Your task to perform on an android device: uninstall "Speedtest by Ookla" Image 0: 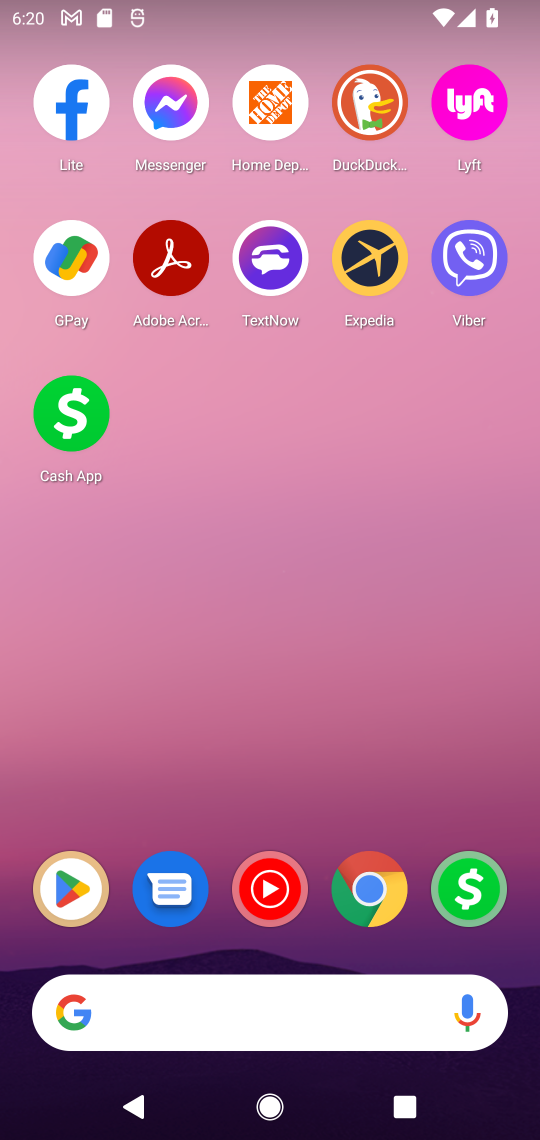
Step 0: drag from (318, 559) to (262, 196)
Your task to perform on an android device: uninstall "Speedtest by Ookla" Image 1: 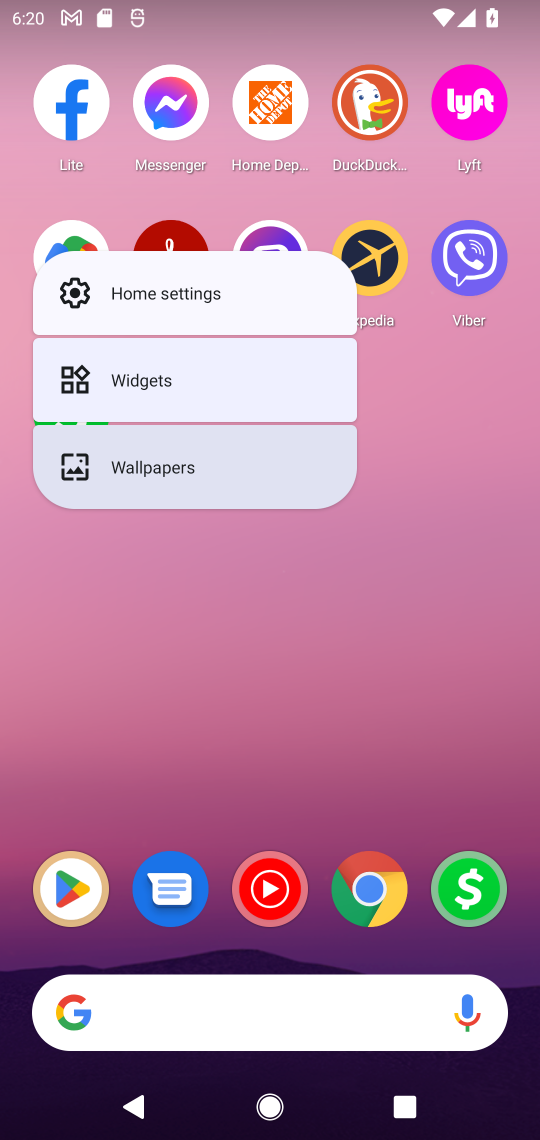
Step 1: drag from (167, 253) to (425, 361)
Your task to perform on an android device: uninstall "Speedtest by Ookla" Image 2: 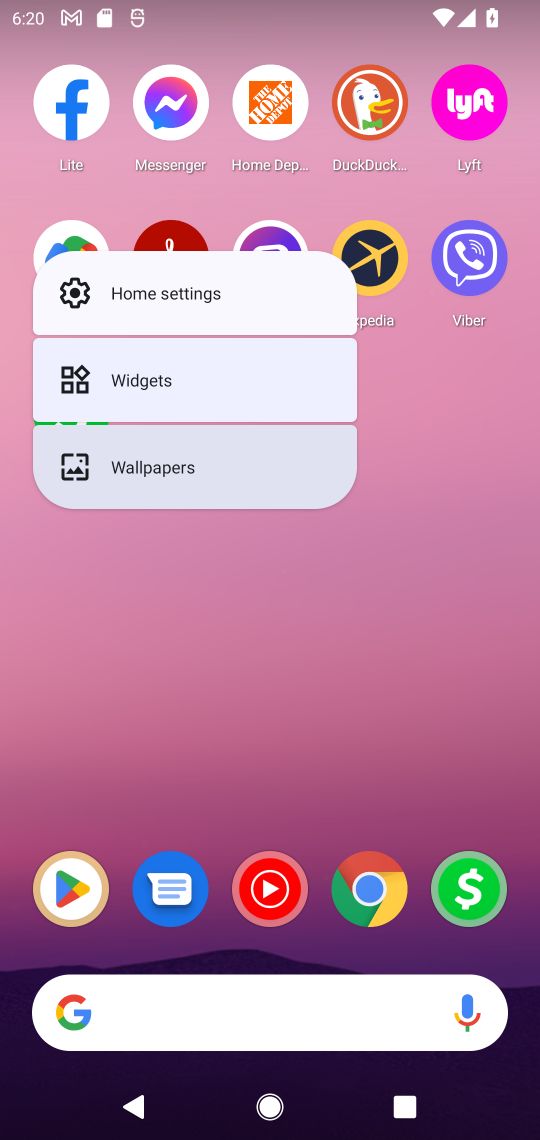
Step 2: drag from (314, 330) to (296, 47)
Your task to perform on an android device: uninstall "Speedtest by Ookla" Image 3: 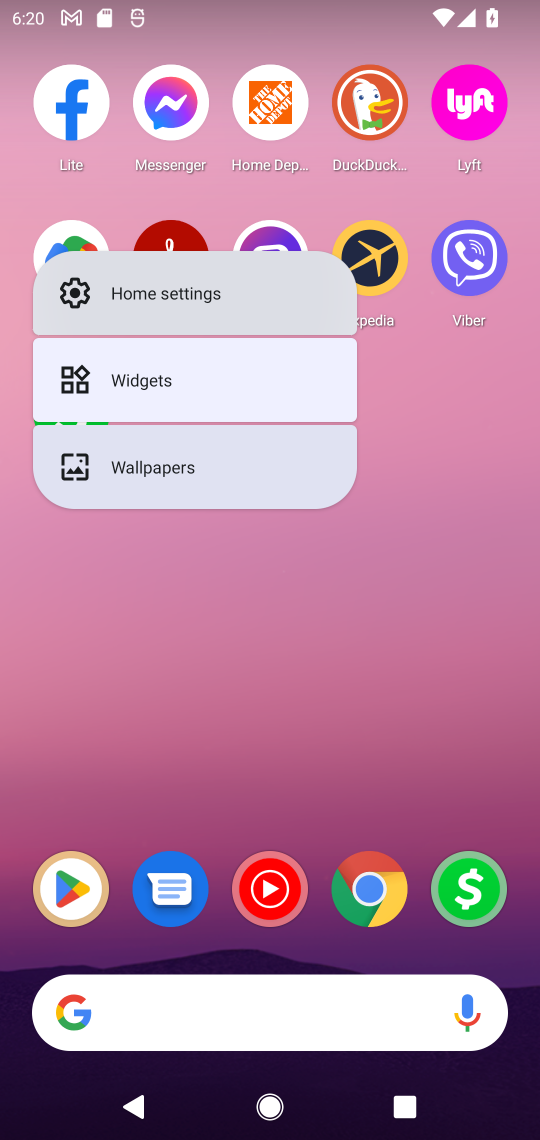
Step 3: press back button
Your task to perform on an android device: uninstall "Speedtest by Ookla" Image 4: 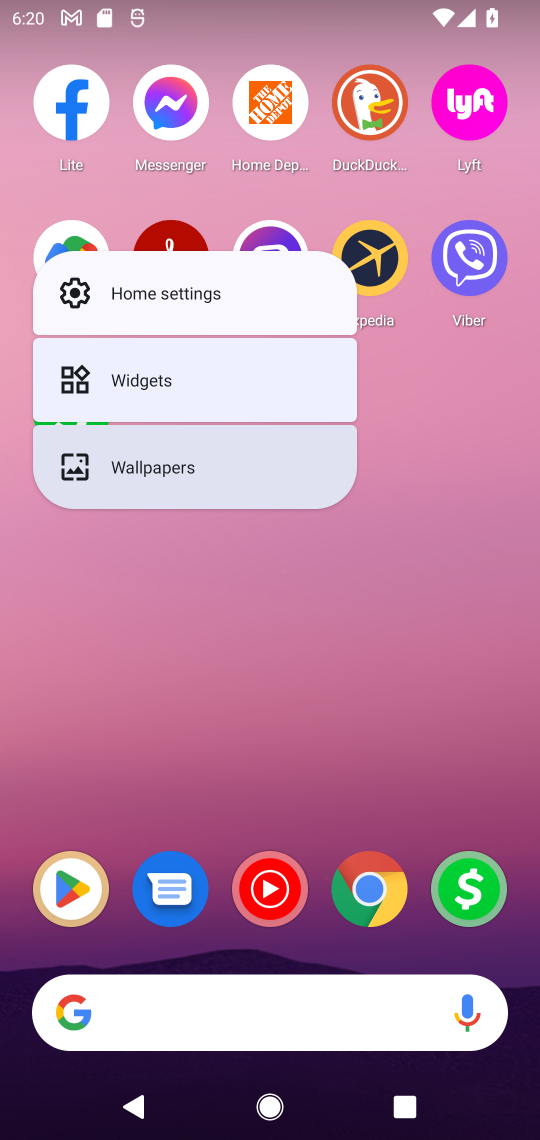
Step 4: press back button
Your task to perform on an android device: uninstall "Speedtest by Ookla" Image 5: 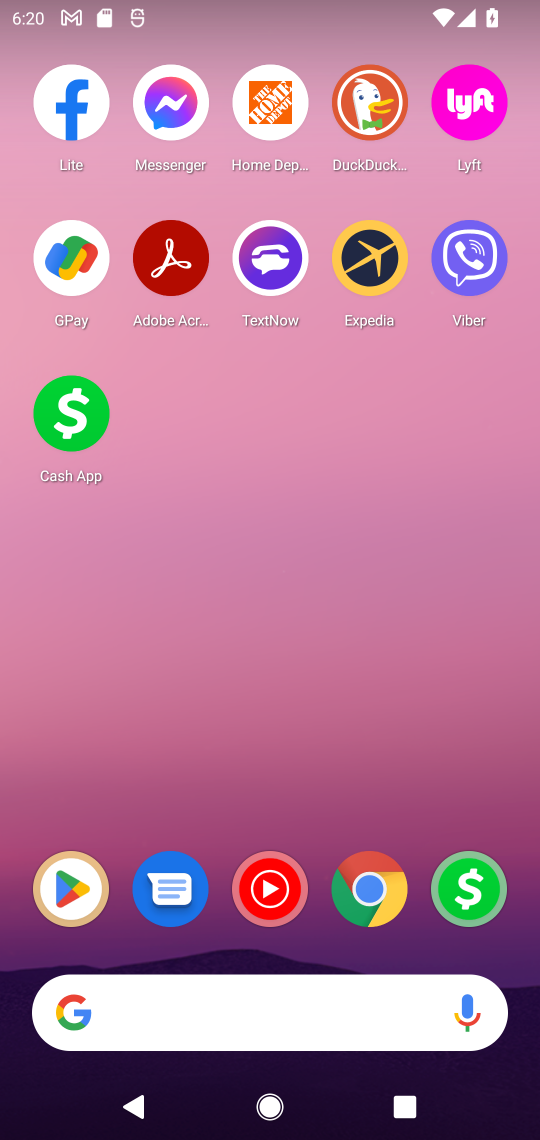
Step 5: drag from (306, 827) to (266, 234)
Your task to perform on an android device: uninstall "Speedtest by Ookla" Image 6: 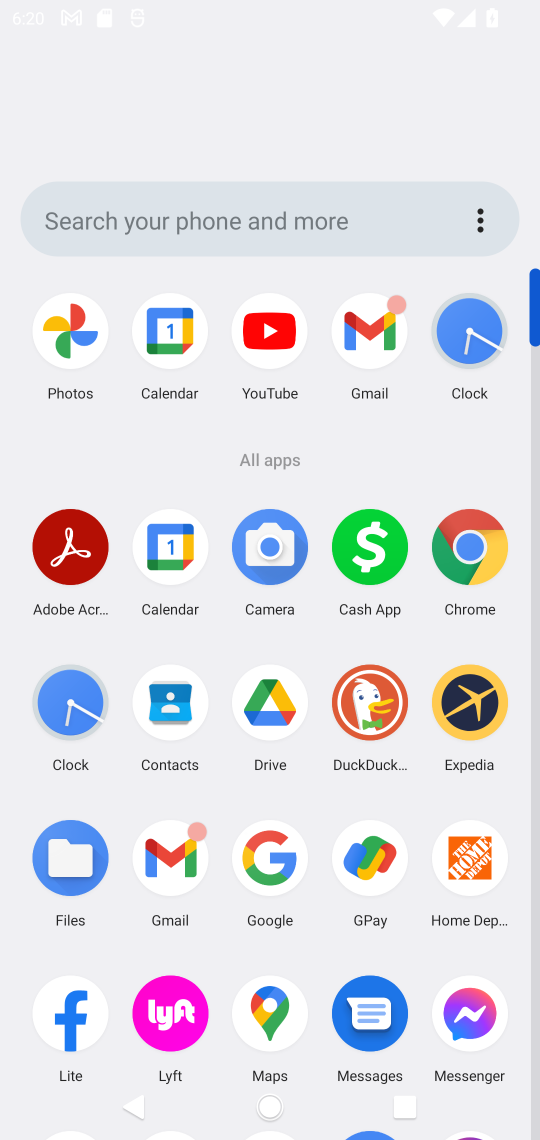
Step 6: drag from (319, 752) to (276, 319)
Your task to perform on an android device: uninstall "Speedtest by Ookla" Image 7: 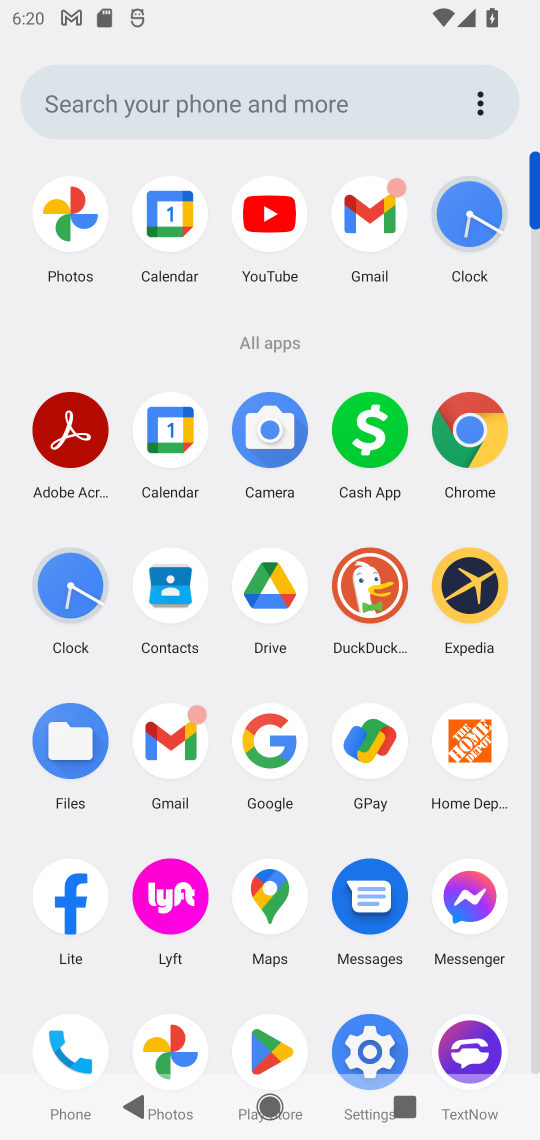
Step 7: drag from (321, 761) to (285, 369)
Your task to perform on an android device: uninstall "Speedtest by Ookla" Image 8: 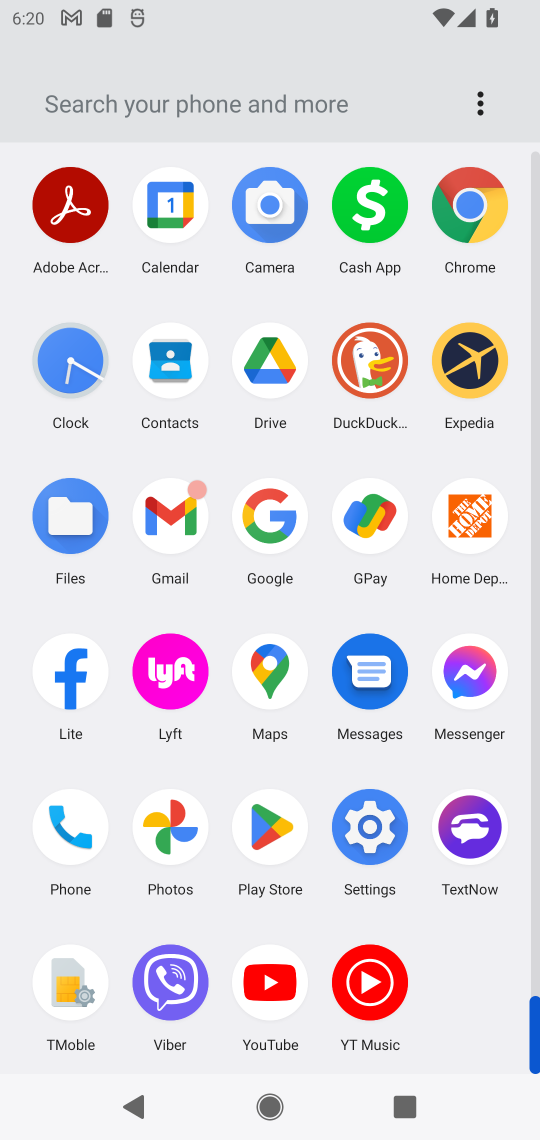
Step 8: click (263, 829)
Your task to perform on an android device: uninstall "Speedtest by Ookla" Image 9: 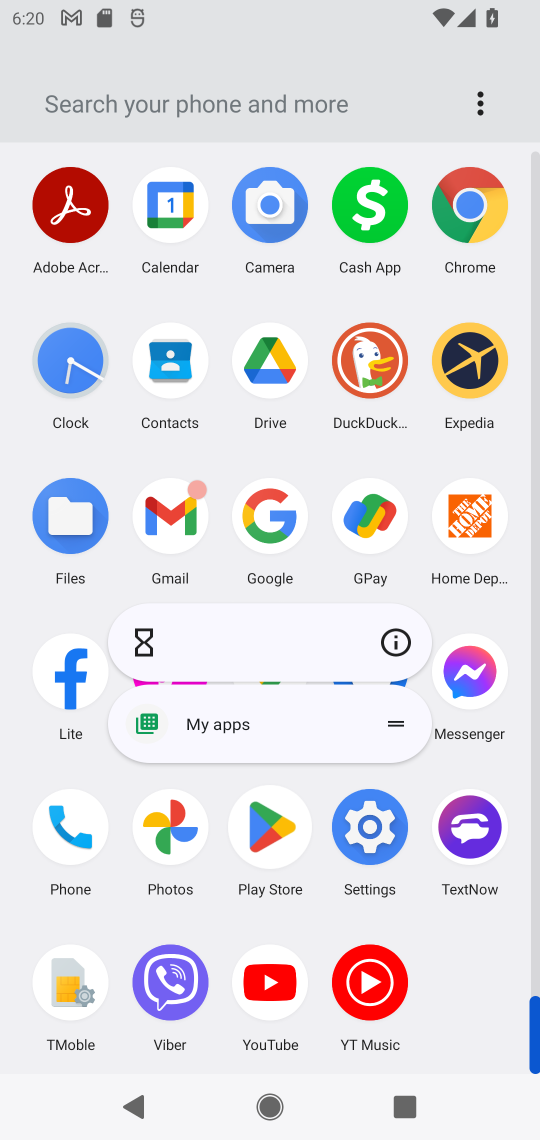
Step 9: click (277, 832)
Your task to perform on an android device: uninstall "Speedtest by Ookla" Image 10: 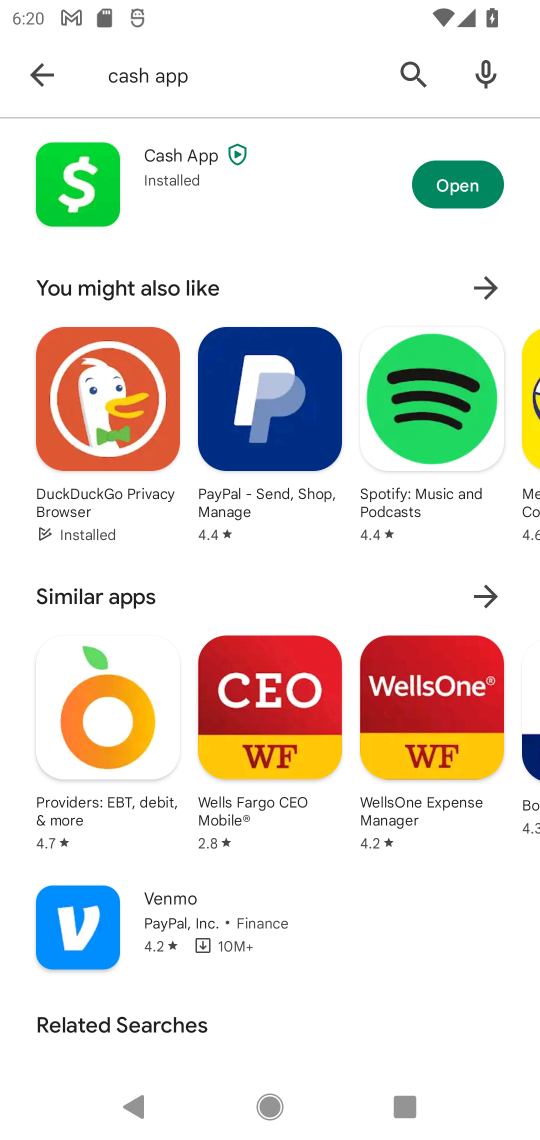
Step 10: click (42, 66)
Your task to perform on an android device: uninstall "Speedtest by Ookla" Image 11: 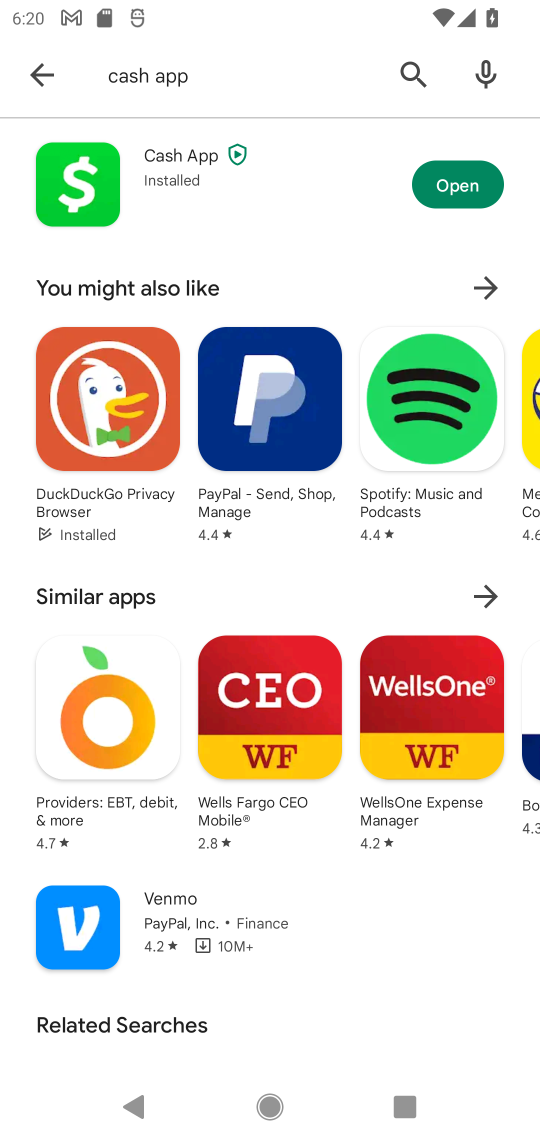
Step 11: click (36, 65)
Your task to perform on an android device: uninstall "Speedtest by Ookla" Image 12: 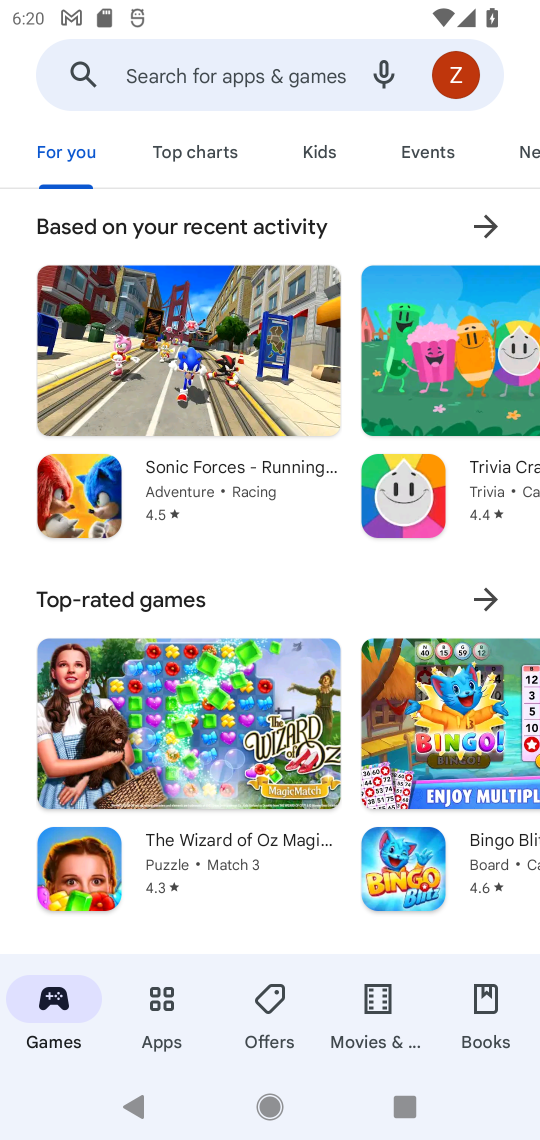
Step 12: click (182, 54)
Your task to perform on an android device: uninstall "Speedtest by Ookla" Image 13: 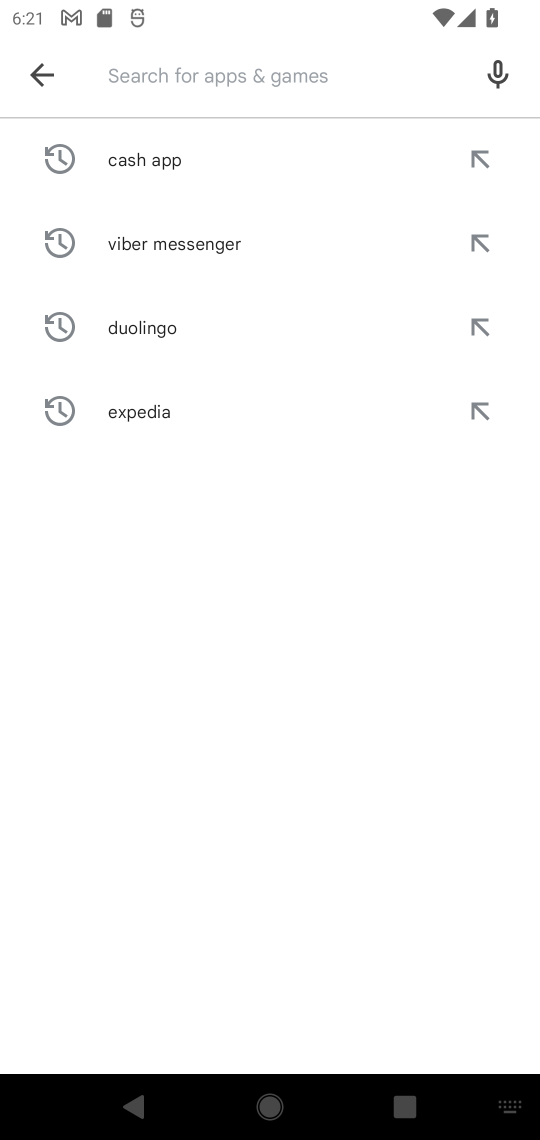
Step 13: type "speedtest by Ookla"
Your task to perform on an android device: uninstall "Speedtest by Ookla" Image 14: 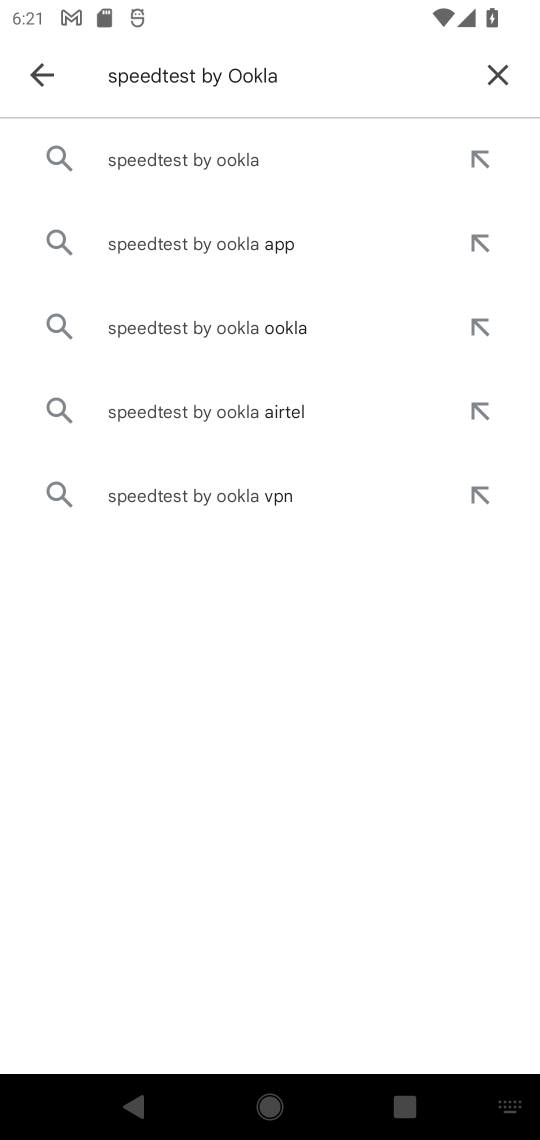
Step 14: click (244, 138)
Your task to perform on an android device: uninstall "Speedtest by Ookla" Image 15: 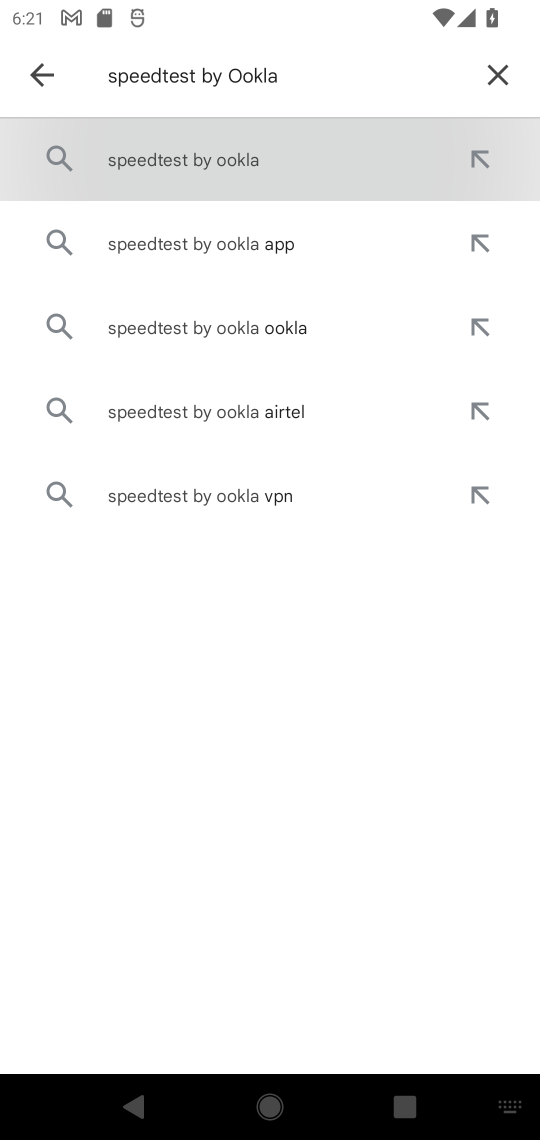
Step 15: click (219, 157)
Your task to perform on an android device: uninstall "Speedtest by Ookla" Image 16: 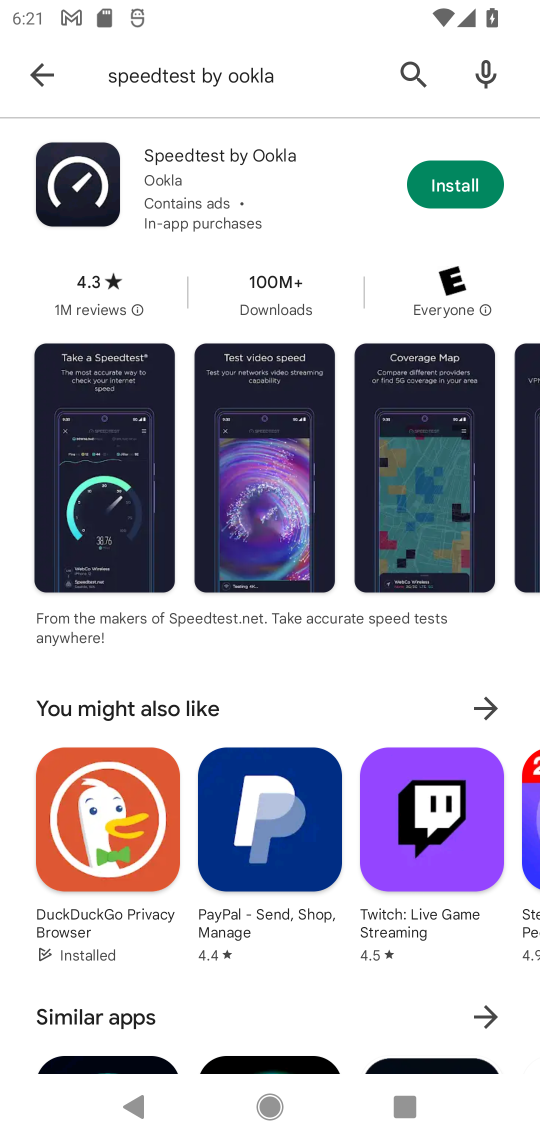
Step 16: click (445, 185)
Your task to perform on an android device: uninstall "Speedtest by Ookla" Image 17: 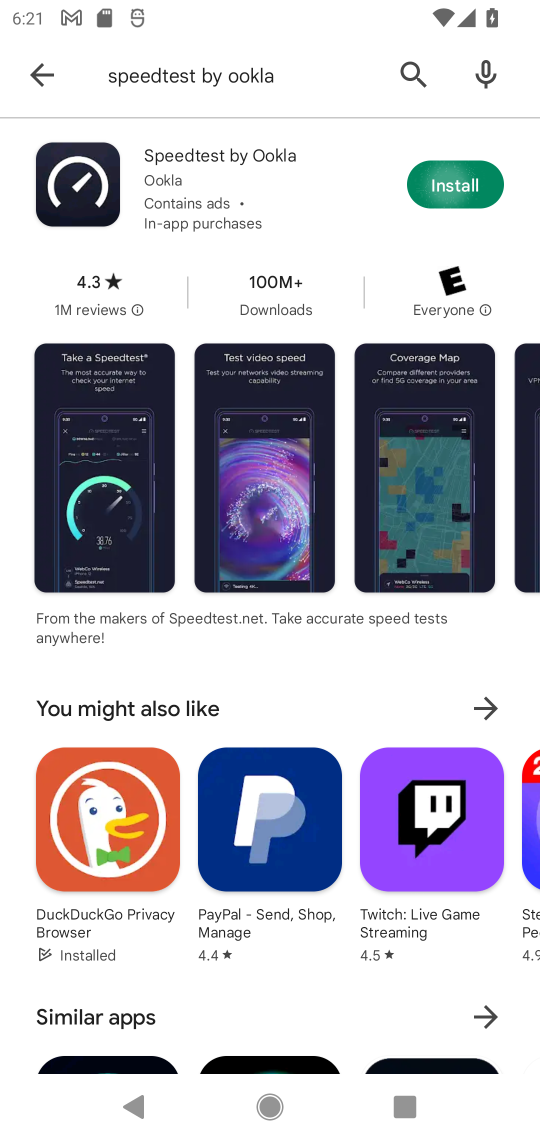
Step 17: click (451, 185)
Your task to perform on an android device: uninstall "Speedtest by Ookla" Image 18: 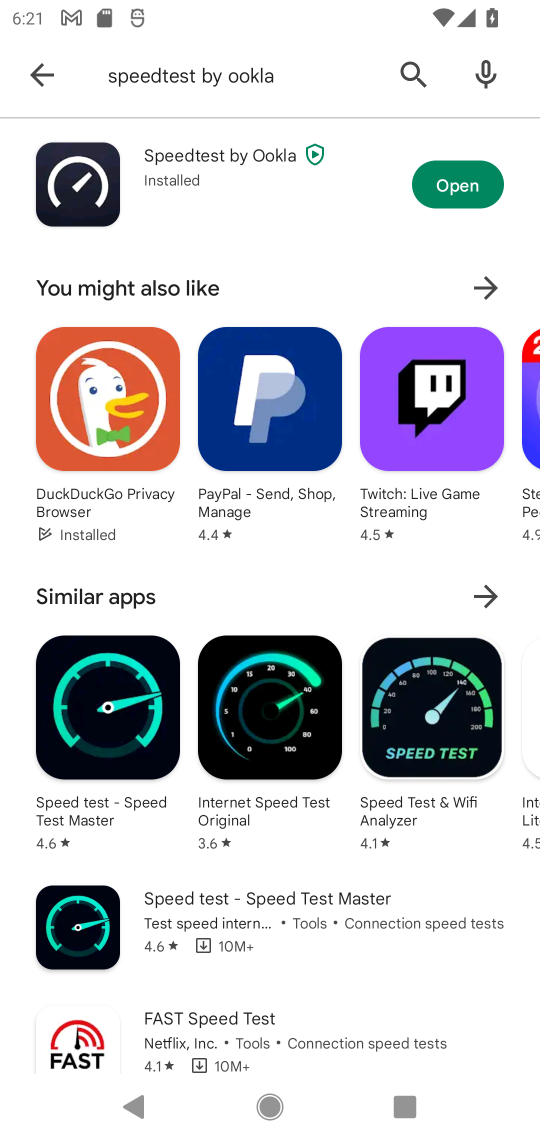
Step 18: click (452, 177)
Your task to perform on an android device: uninstall "Speedtest by Ookla" Image 19: 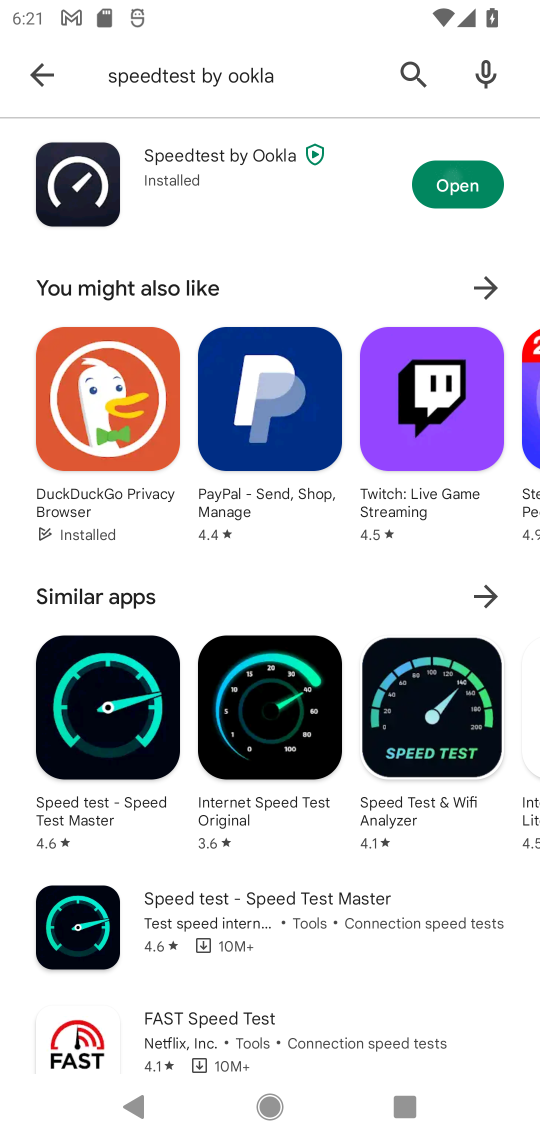
Step 19: click (451, 176)
Your task to perform on an android device: uninstall "Speedtest by Ookla" Image 20: 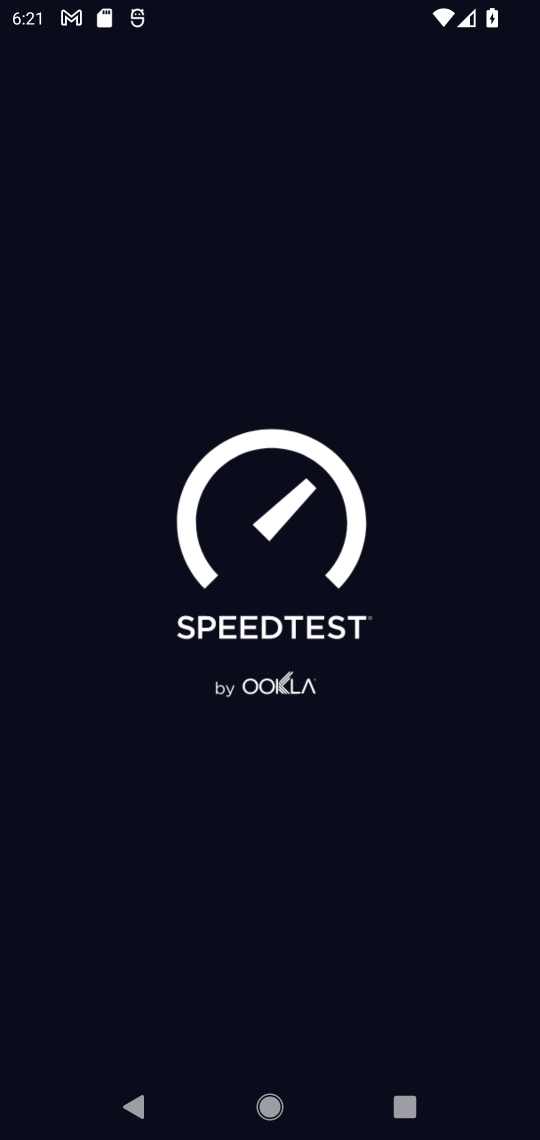
Step 20: click (333, 353)
Your task to perform on an android device: uninstall "Speedtest by Ookla" Image 21: 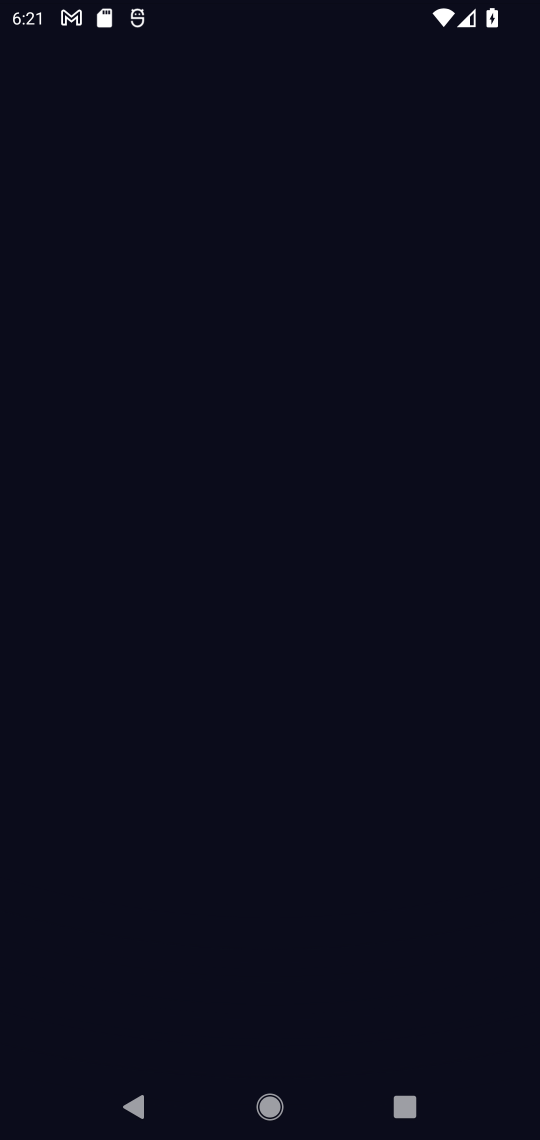
Step 21: click (332, 355)
Your task to perform on an android device: uninstall "Speedtest by Ookla" Image 22: 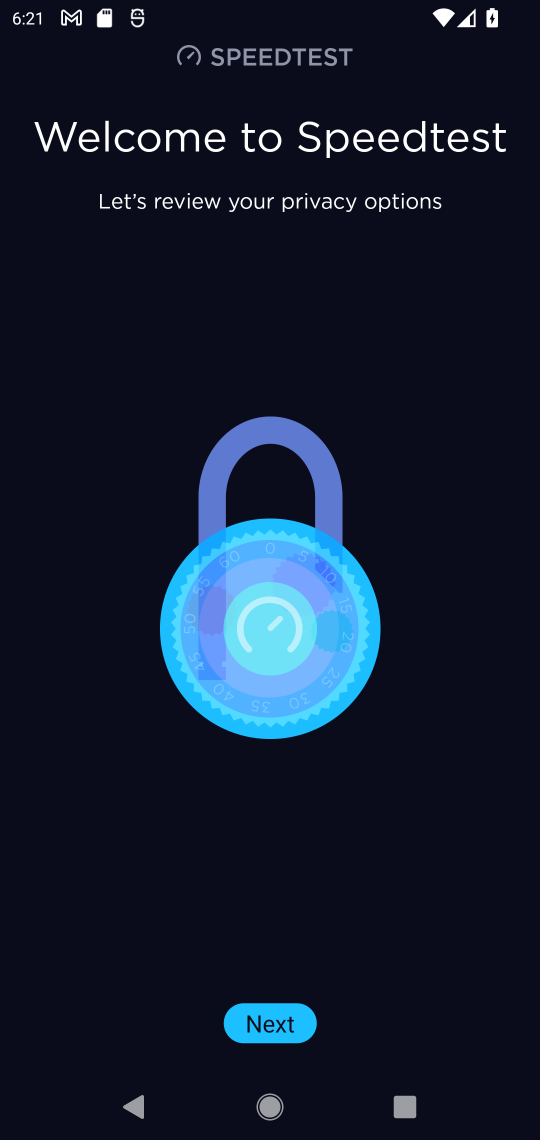
Step 22: click (342, 365)
Your task to perform on an android device: uninstall "Speedtest by Ookla" Image 23: 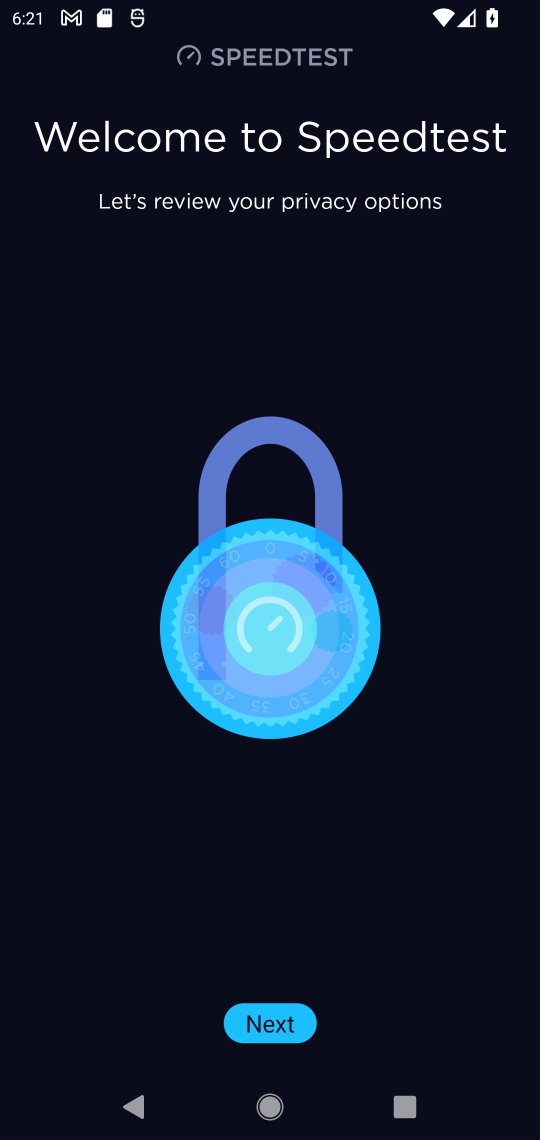
Step 23: click (274, 1014)
Your task to perform on an android device: uninstall "Speedtest by Ookla" Image 24: 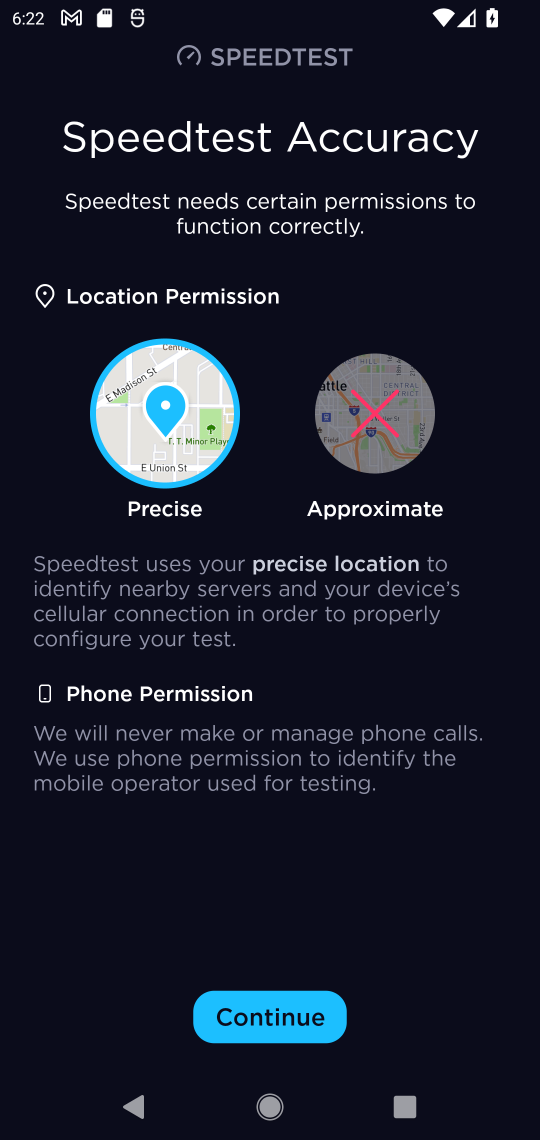
Step 24: click (293, 987)
Your task to perform on an android device: uninstall "Speedtest by Ookla" Image 25: 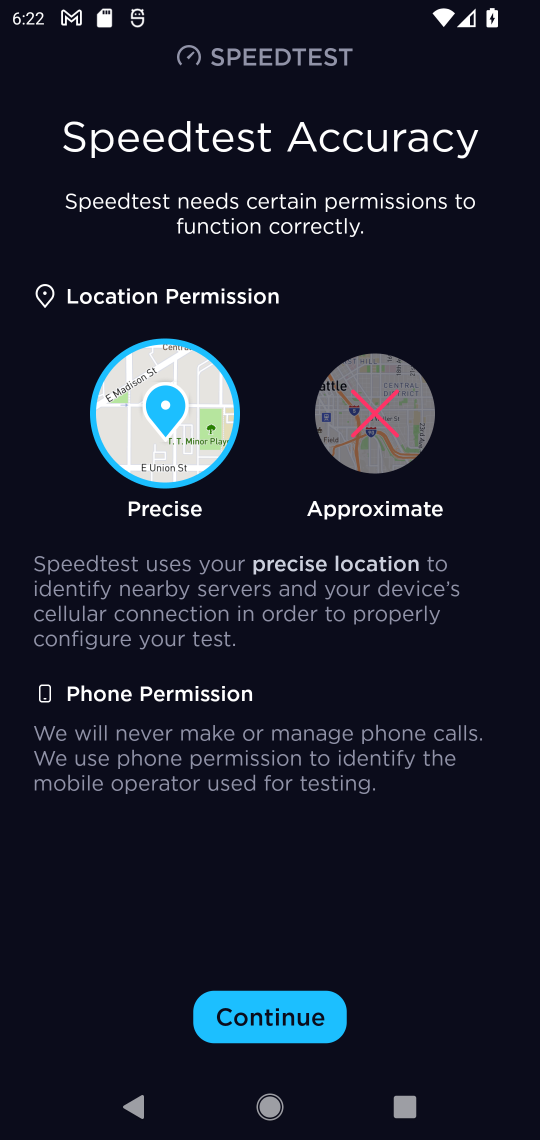
Step 25: click (293, 987)
Your task to perform on an android device: uninstall "Speedtest by Ookla" Image 26: 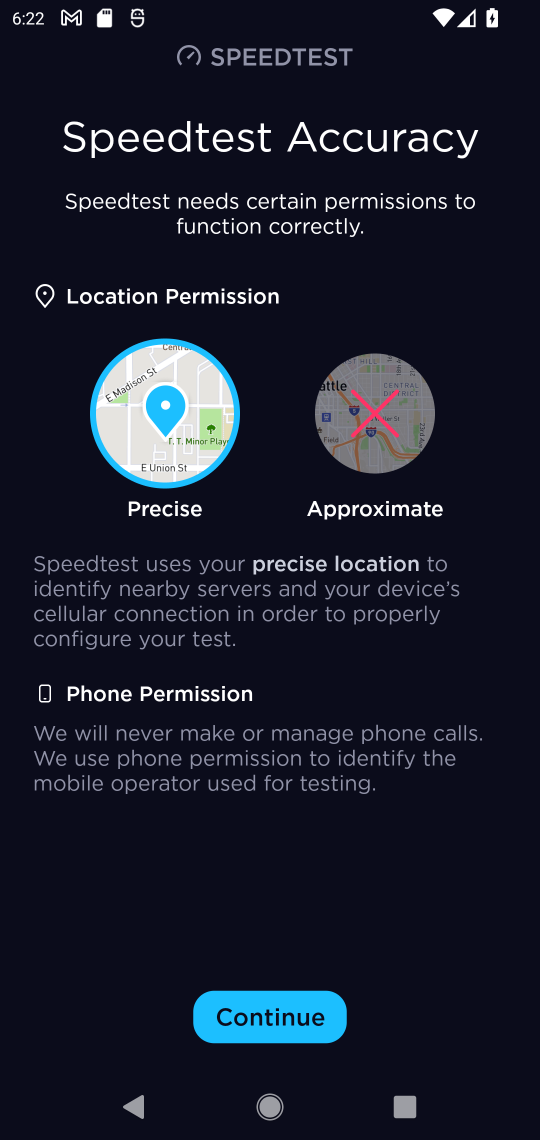
Step 26: click (294, 989)
Your task to perform on an android device: uninstall "Speedtest by Ookla" Image 27: 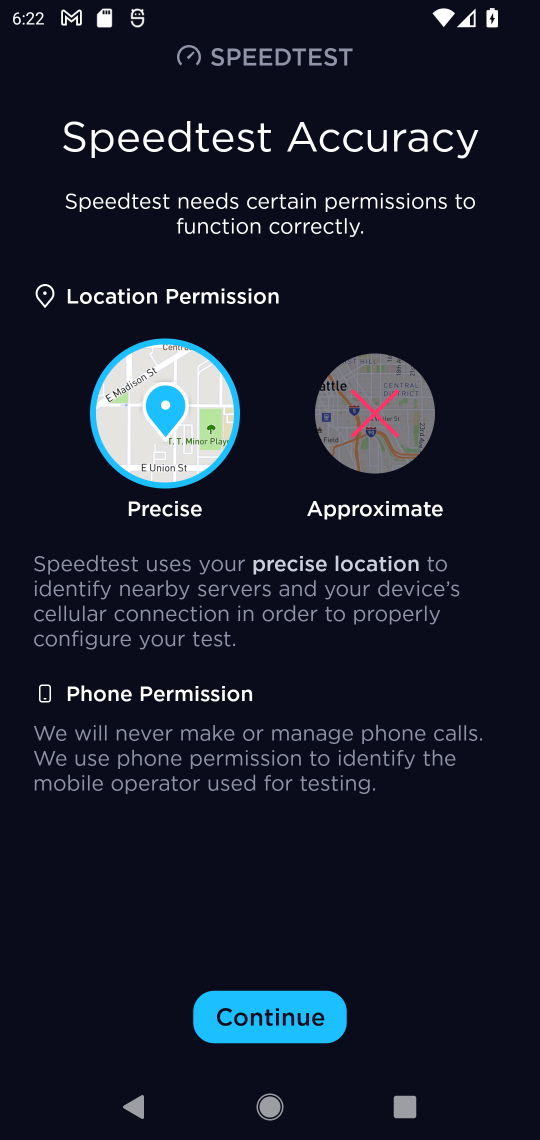
Step 27: click (305, 997)
Your task to perform on an android device: uninstall "Speedtest by Ookla" Image 28: 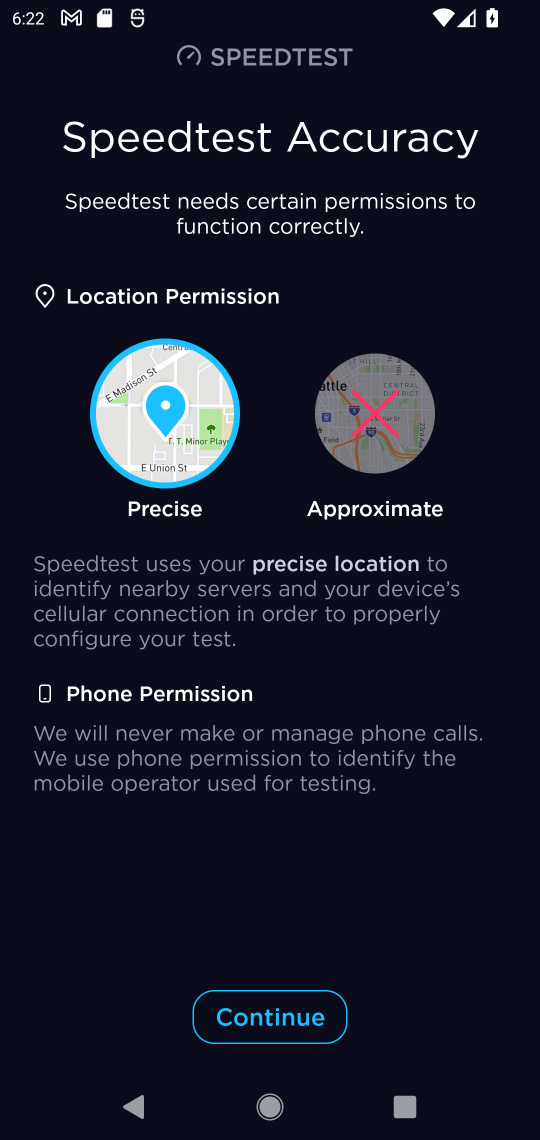
Step 28: click (310, 1001)
Your task to perform on an android device: uninstall "Speedtest by Ookla" Image 29: 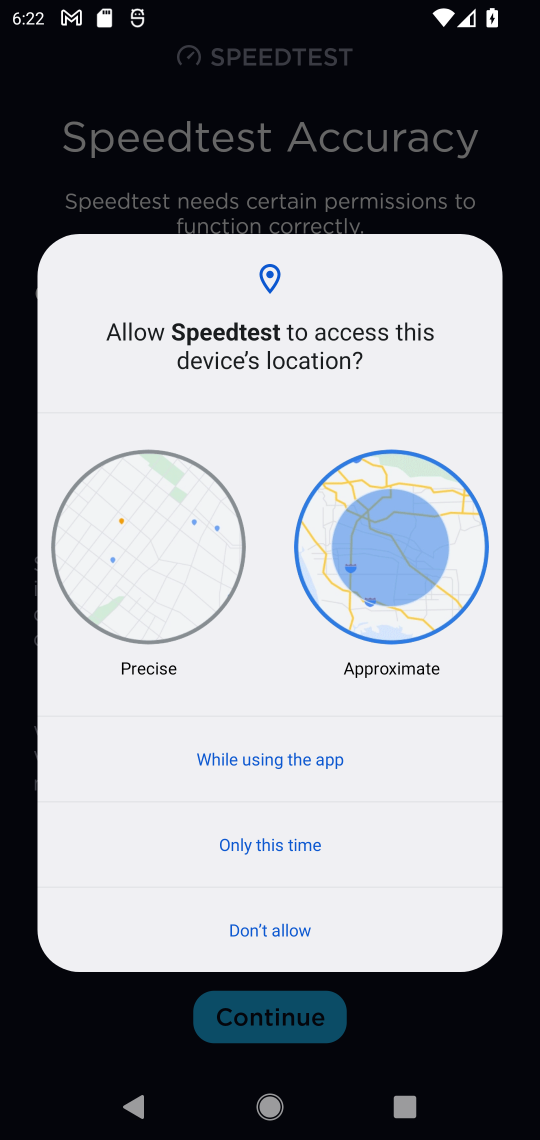
Step 29: click (318, 1014)
Your task to perform on an android device: uninstall "Speedtest by Ookla" Image 30: 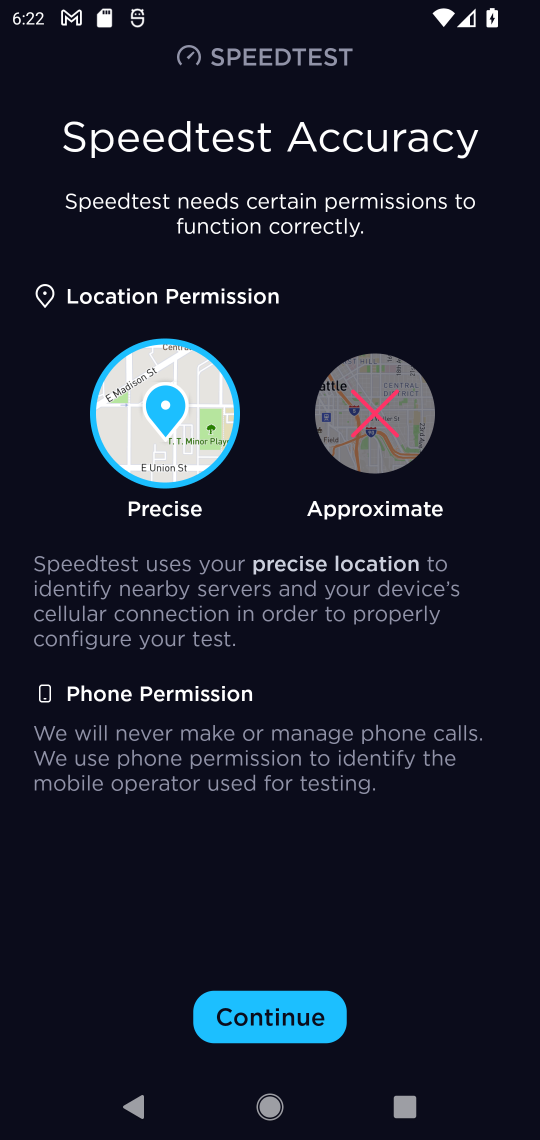
Step 30: press back button
Your task to perform on an android device: uninstall "Speedtest by Ookla" Image 31: 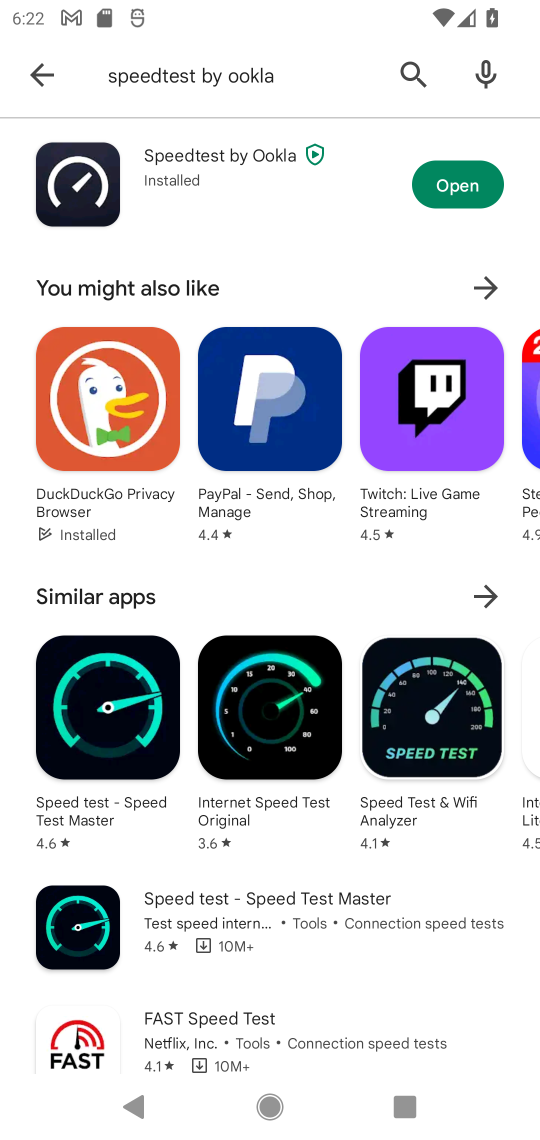
Step 31: click (458, 178)
Your task to perform on an android device: uninstall "Speedtest by Ookla" Image 32: 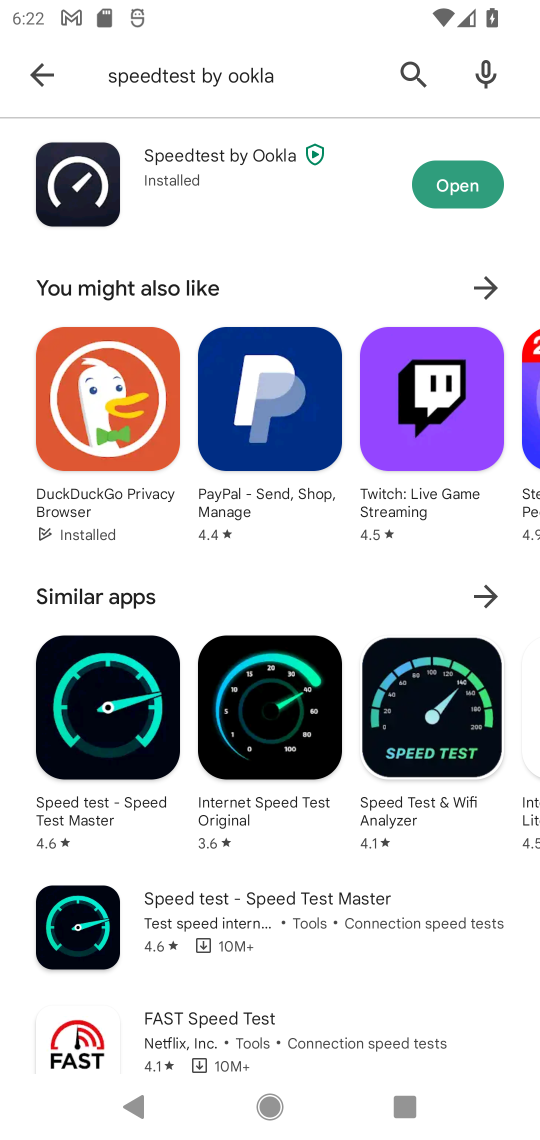
Step 32: click (91, 171)
Your task to perform on an android device: uninstall "Speedtest by Ookla" Image 33: 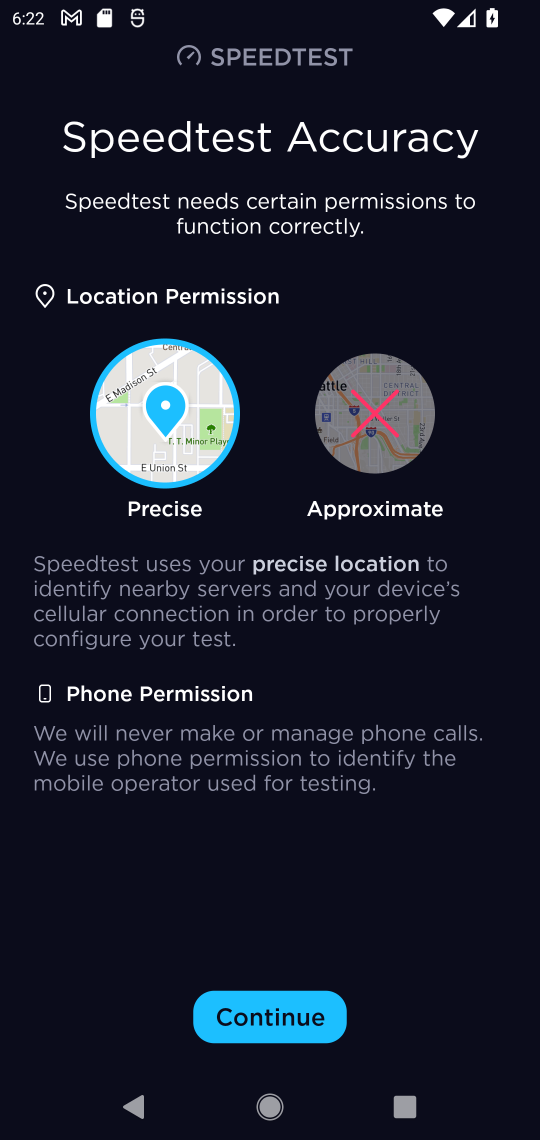
Step 33: task complete